Your task to perform on an android device: make emails show in primary in the gmail app Image 0: 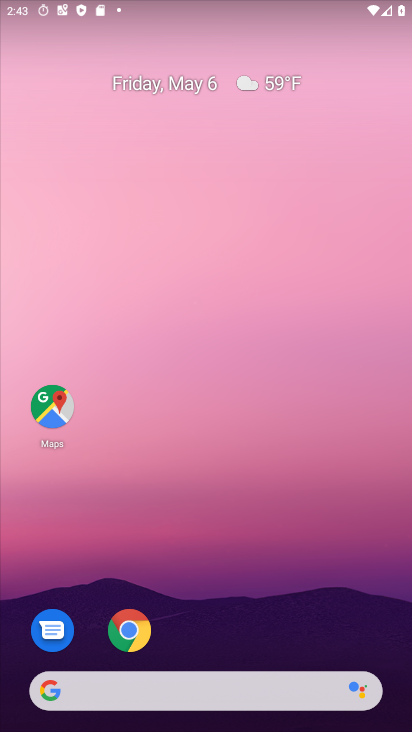
Step 0: drag from (242, 294) to (239, 182)
Your task to perform on an android device: make emails show in primary in the gmail app Image 1: 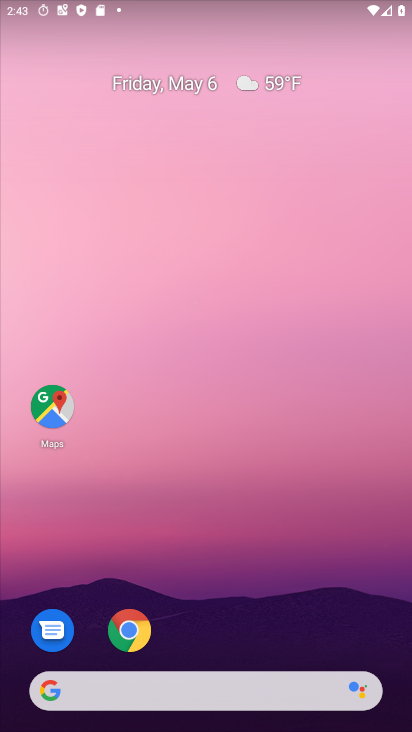
Step 1: drag from (209, 650) to (263, 234)
Your task to perform on an android device: make emails show in primary in the gmail app Image 2: 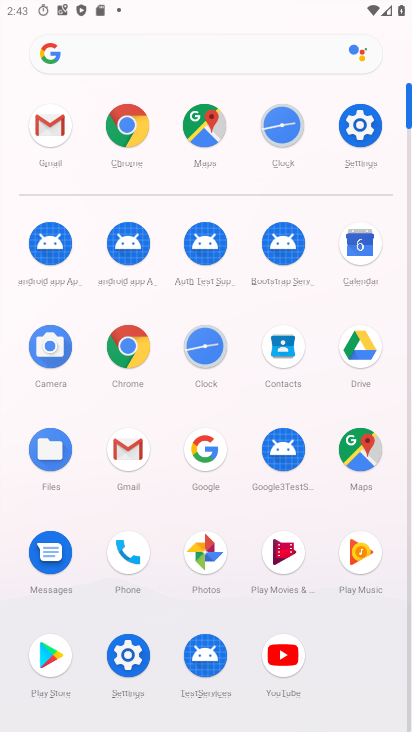
Step 2: click (56, 131)
Your task to perform on an android device: make emails show in primary in the gmail app Image 3: 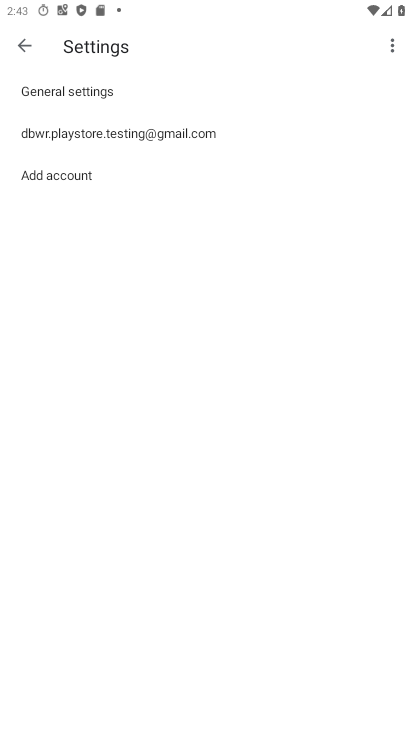
Step 3: click (80, 129)
Your task to perform on an android device: make emails show in primary in the gmail app Image 4: 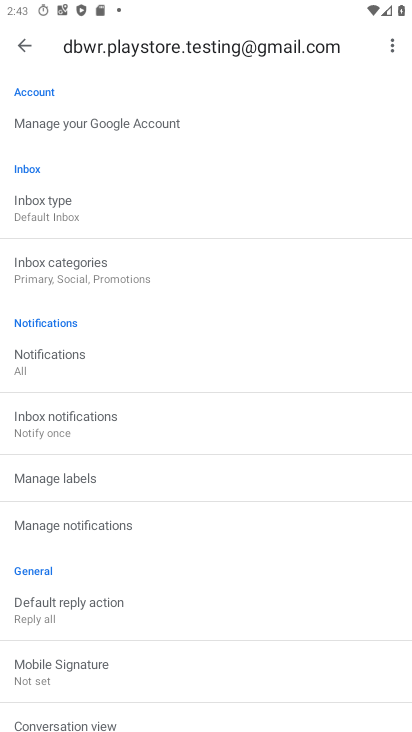
Step 4: click (111, 207)
Your task to perform on an android device: make emails show in primary in the gmail app Image 5: 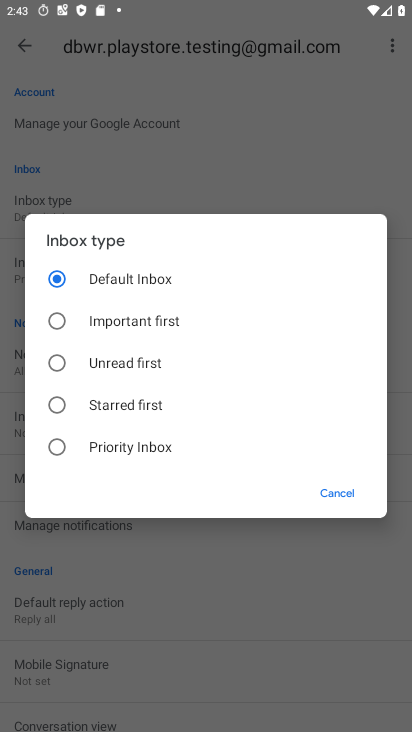
Step 5: click (337, 496)
Your task to perform on an android device: make emails show in primary in the gmail app Image 6: 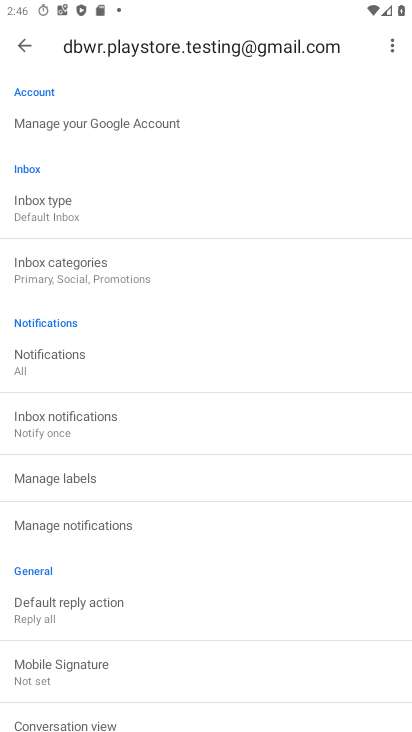
Step 6: click (108, 266)
Your task to perform on an android device: make emails show in primary in the gmail app Image 7: 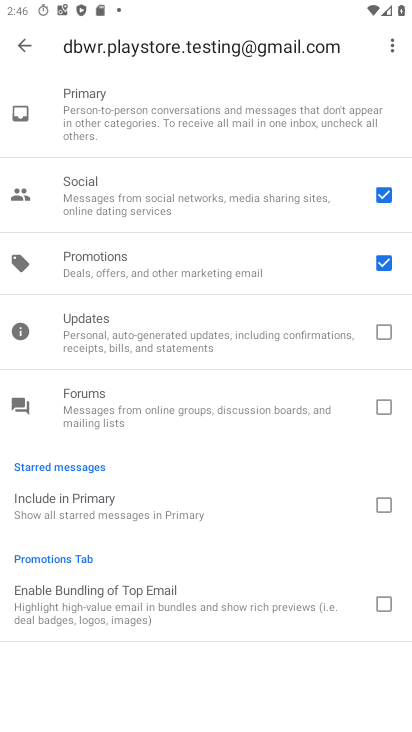
Step 7: task complete